Your task to perform on an android device: Search for Italian restaurants on Maps Image 0: 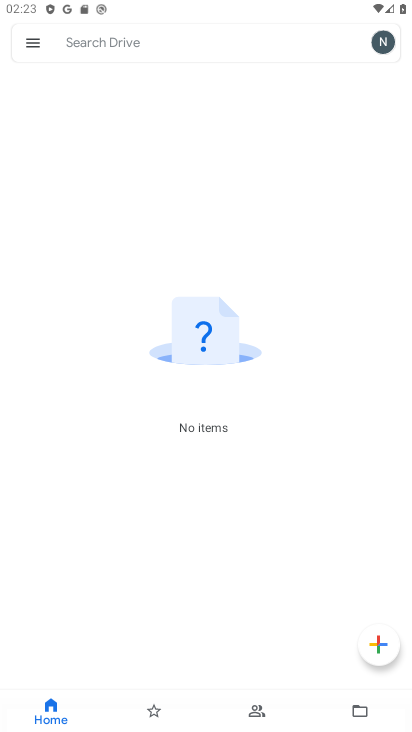
Step 0: press home button
Your task to perform on an android device: Search for Italian restaurants on Maps Image 1: 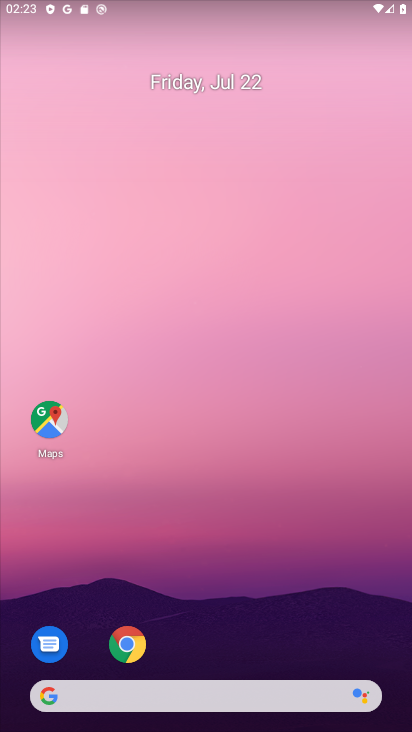
Step 1: click (47, 417)
Your task to perform on an android device: Search for Italian restaurants on Maps Image 2: 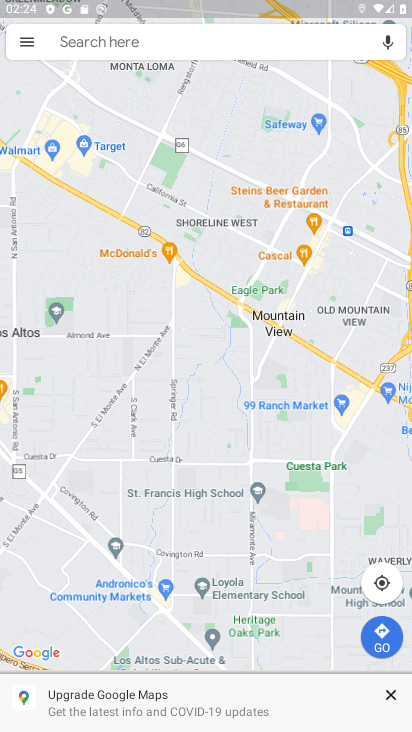
Step 2: click (234, 39)
Your task to perform on an android device: Search for Italian restaurants on Maps Image 3: 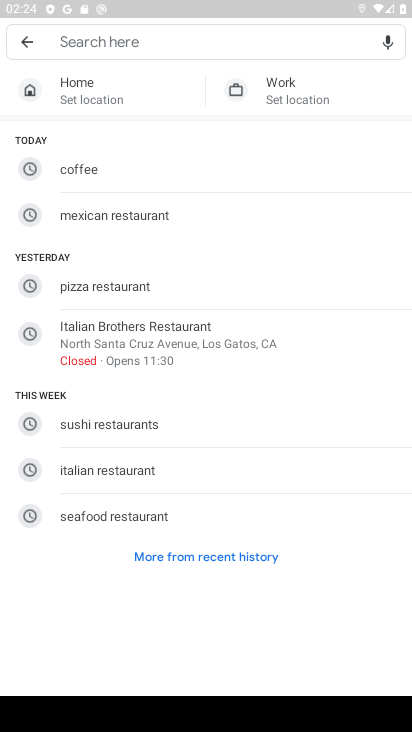
Step 3: click (138, 470)
Your task to perform on an android device: Search for Italian restaurants on Maps Image 4: 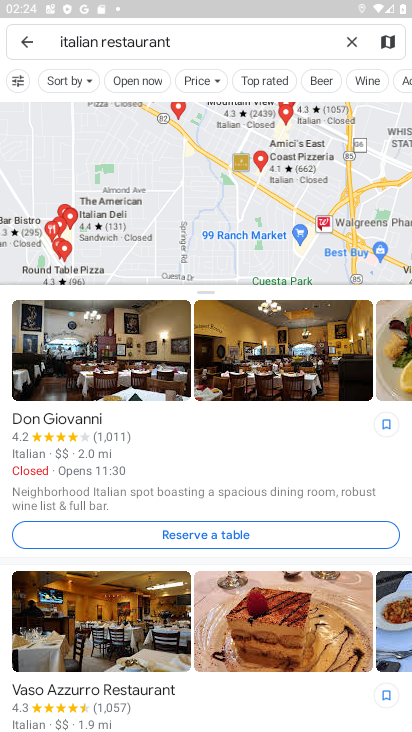
Step 4: task complete